Your task to perform on an android device: View the shopping cart on bestbuy.com. Search for "asus rog" on bestbuy.com, select the first entry, and add it to the cart. Image 0: 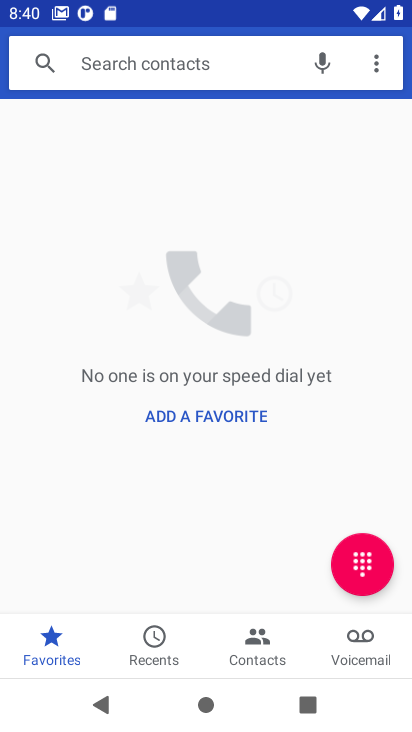
Step 0: press home button
Your task to perform on an android device: View the shopping cart on bestbuy.com. Search for "asus rog" on bestbuy.com, select the first entry, and add it to the cart. Image 1: 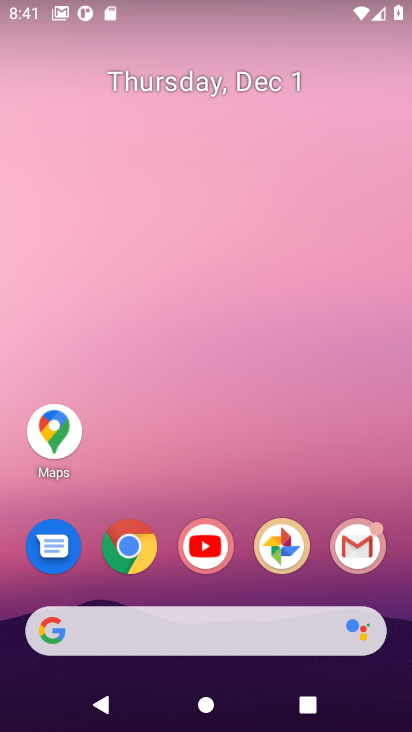
Step 1: click (128, 555)
Your task to perform on an android device: View the shopping cart on bestbuy.com. Search for "asus rog" on bestbuy.com, select the first entry, and add it to the cart. Image 2: 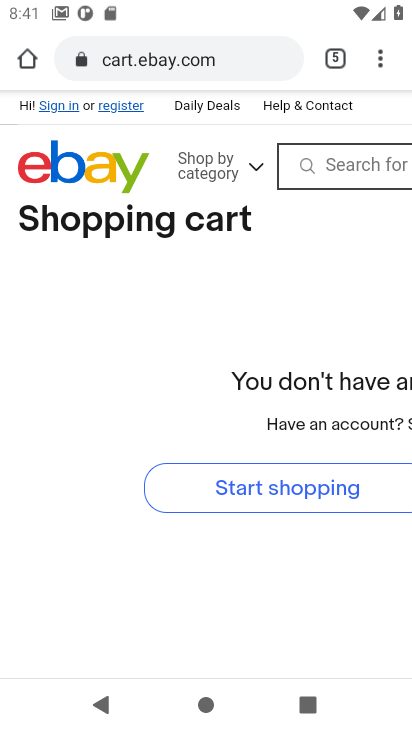
Step 2: click (178, 61)
Your task to perform on an android device: View the shopping cart on bestbuy.com. Search for "asus rog" on bestbuy.com, select the first entry, and add it to the cart. Image 3: 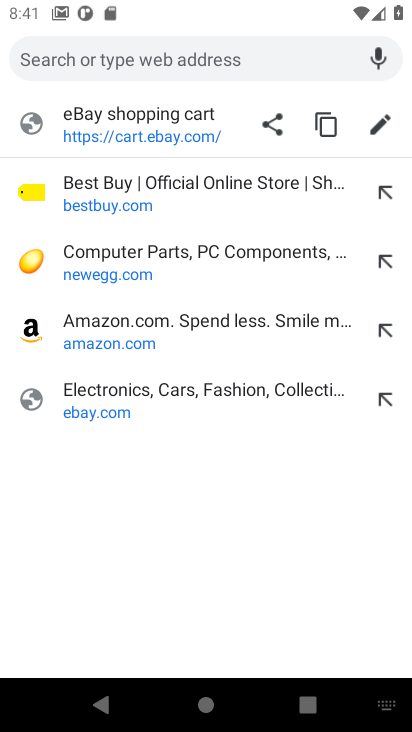
Step 3: click (106, 195)
Your task to perform on an android device: View the shopping cart on bestbuy.com. Search for "asus rog" on bestbuy.com, select the first entry, and add it to the cart. Image 4: 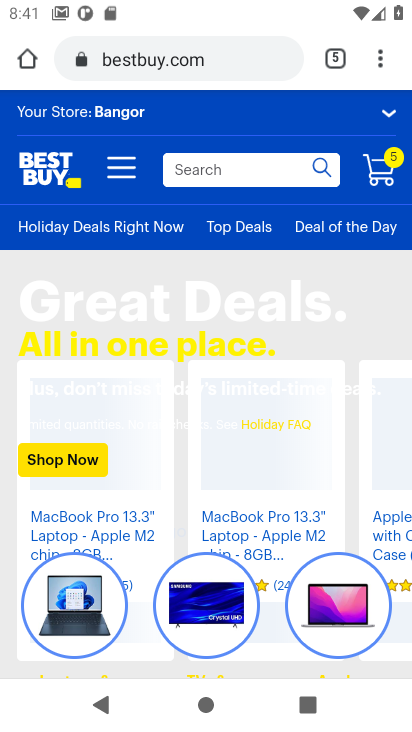
Step 4: click (376, 174)
Your task to perform on an android device: View the shopping cart on bestbuy.com. Search for "asus rog" on bestbuy.com, select the first entry, and add it to the cart. Image 5: 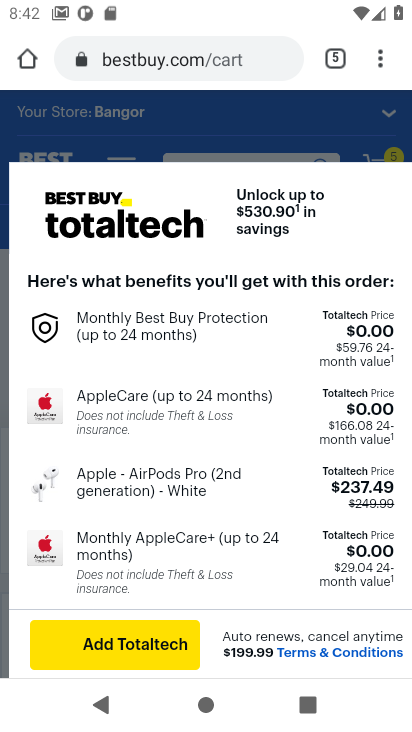
Step 5: drag from (215, 403) to (210, 248)
Your task to perform on an android device: View the shopping cart on bestbuy.com. Search for "asus rog" on bestbuy.com, select the first entry, and add it to the cart. Image 6: 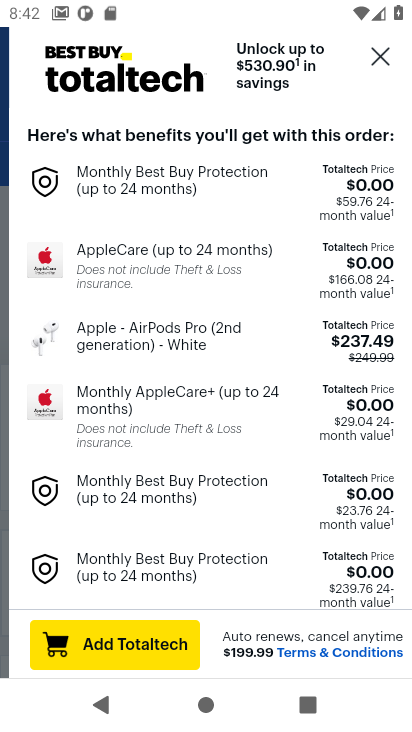
Step 6: click (377, 59)
Your task to perform on an android device: View the shopping cart on bestbuy.com. Search for "asus rog" on bestbuy.com, select the first entry, and add it to the cart. Image 7: 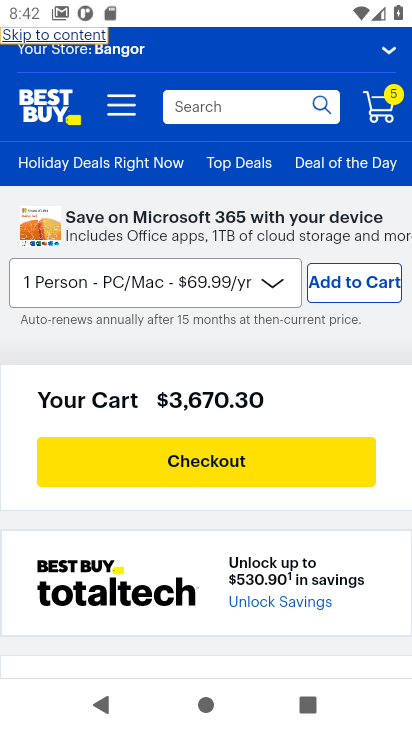
Step 7: drag from (173, 404) to (173, 144)
Your task to perform on an android device: View the shopping cart on bestbuy.com. Search for "asus rog" on bestbuy.com, select the first entry, and add it to the cart. Image 8: 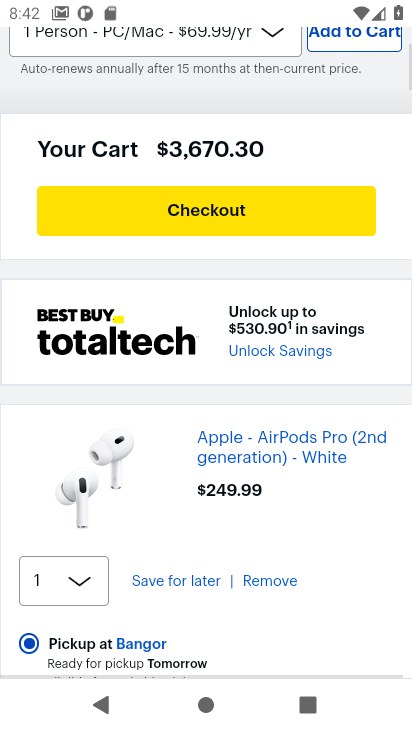
Step 8: drag from (152, 464) to (164, 288)
Your task to perform on an android device: View the shopping cart on bestbuy.com. Search for "asus rog" on bestbuy.com, select the first entry, and add it to the cart. Image 9: 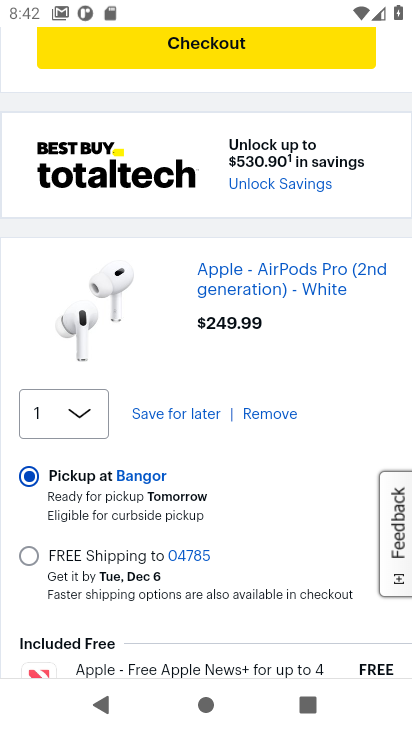
Step 9: drag from (266, 181) to (247, 501)
Your task to perform on an android device: View the shopping cart on bestbuy.com. Search for "asus rog" on bestbuy.com, select the first entry, and add it to the cart. Image 10: 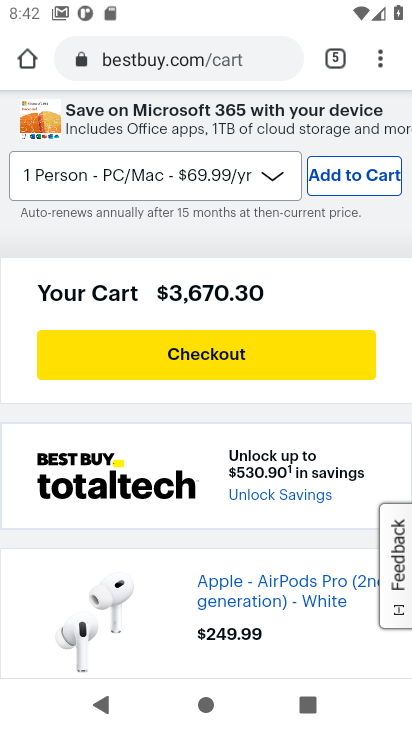
Step 10: drag from (220, 201) to (222, 493)
Your task to perform on an android device: View the shopping cart on bestbuy.com. Search for "asus rog" on bestbuy.com, select the first entry, and add it to the cart. Image 11: 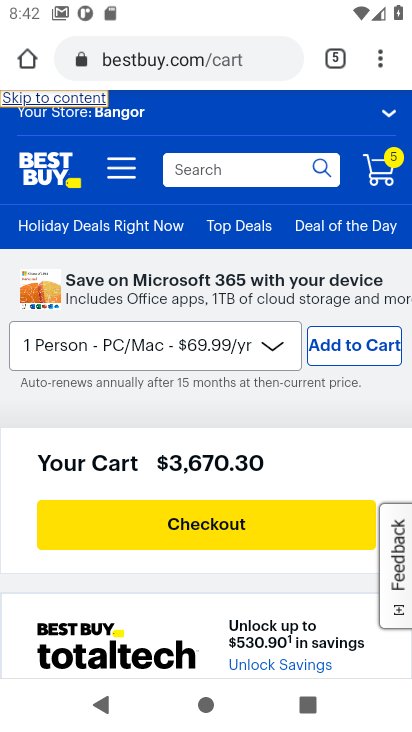
Step 11: click (216, 173)
Your task to perform on an android device: View the shopping cart on bestbuy.com. Search for "asus rog" on bestbuy.com, select the first entry, and add it to the cart. Image 12: 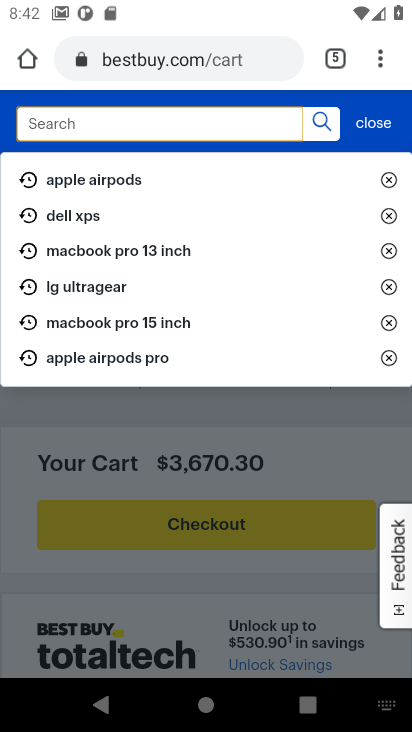
Step 12: type "asus rog"
Your task to perform on an android device: View the shopping cart on bestbuy.com. Search for "asus rog" on bestbuy.com, select the first entry, and add it to the cart. Image 13: 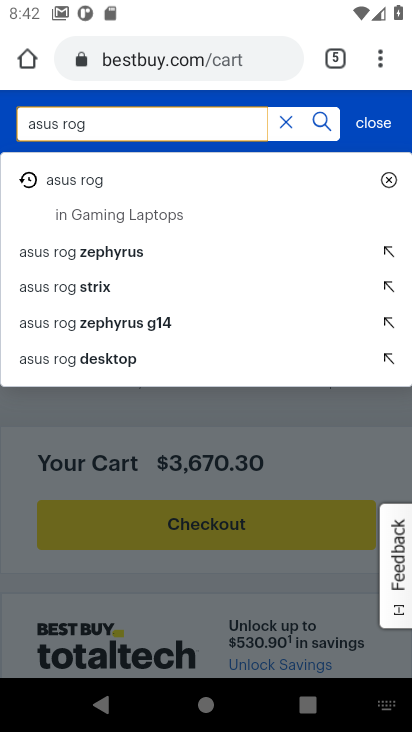
Step 13: click (77, 179)
Your task to perform on an android device: View the shopping cart on bestbuy.com. Search for "asus rog" on bestbuy.com, select the first entry, and add it to the cart. Image 14: 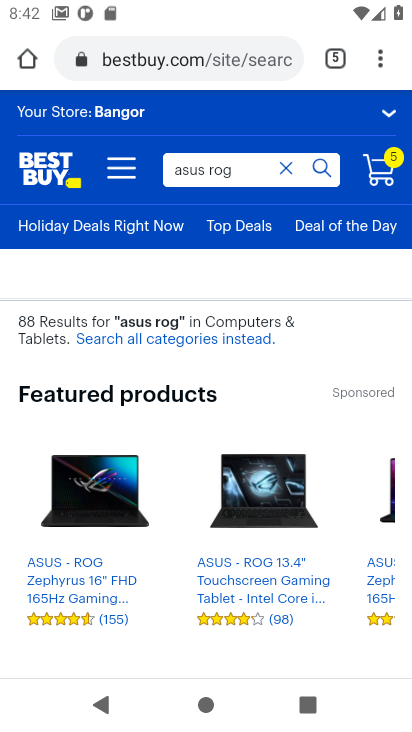
Step 14: drag from (148, 373) to (139, 151)
Your task to perform on an android device: View the shopping cart on bestbuy.com. Search for "asus rog" on bestbuy.com, select the first entry, and add it to the cart. Image 15: 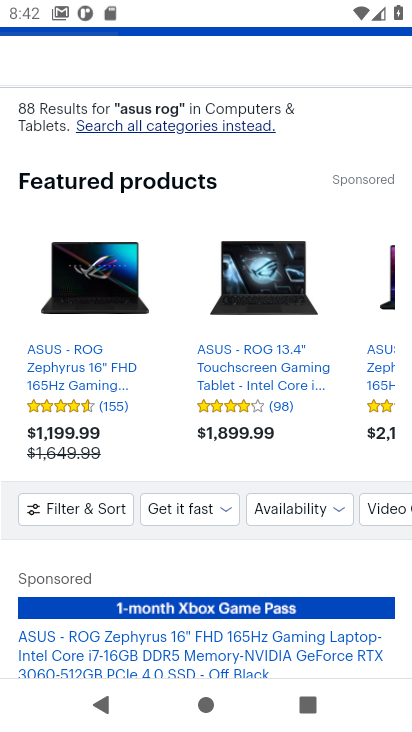
Step 15: drag from (157, 432) to (136, 147)
Your task to perform on an android device: View the shopping cart on bestbuy.com. Search for "asus rog" on bestbuy.com, select the first entry, and add it to the cart. Image 16: 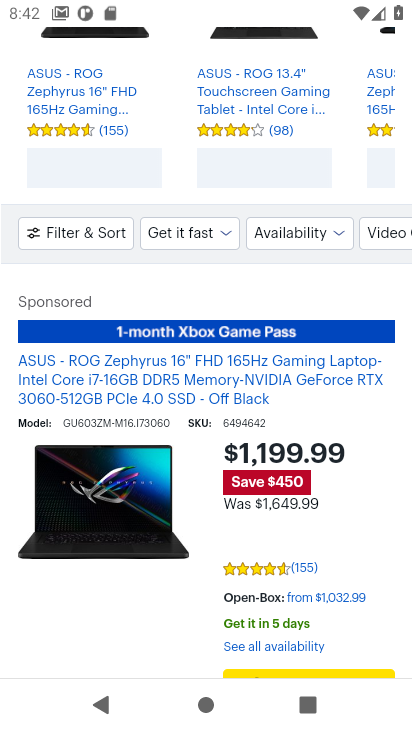
Step 16: click (348, 650)
Your task to perform on an android device: View the shopping cart on bestbuy.com. Search for "asus rog" on bestbuy.com, select the first entry, and add it to the cart. Image 17: 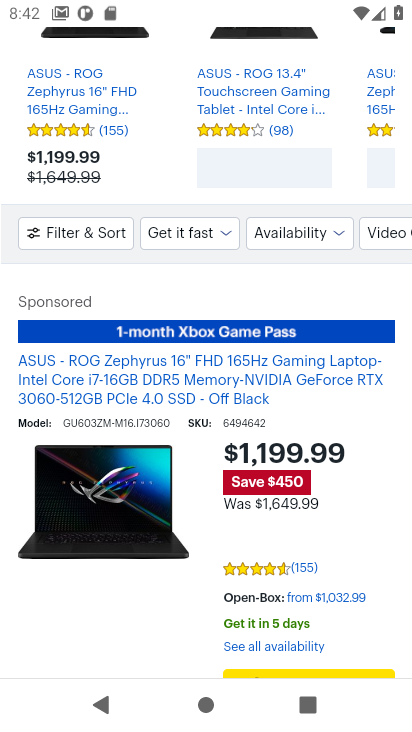
Step 17: drag from (348, 649) to (337, 462)
Your task to perform on an android device: View the shopping cart on bestbuy.com. Search for "asus rog" on bestbuy.com, select the first entry, and add it to the cart. Image 18: 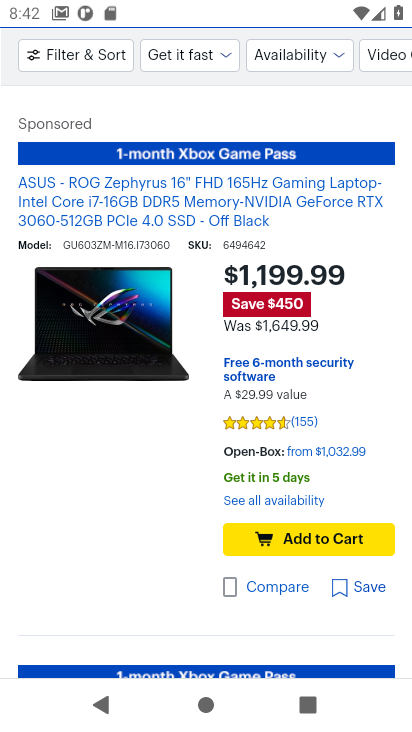
Step 18: click (331, 477)
Your task to perform on an android device: View the shopping cart on bestbuy.com. Search for "asus rog" on bestbuy.com, select the first entry, and add it to the cart. Image 19: 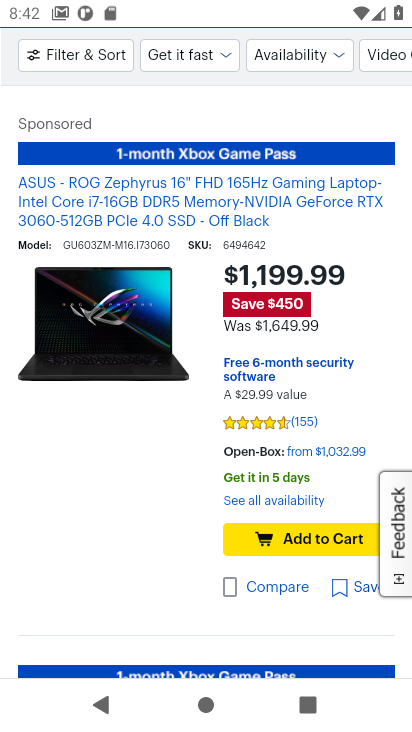
Step 19: click (315, 536)
Your task to perform on an android device: View the shopping cart on bestbuy.com. Search for "asus rog" on bestbuy.com, select the first entry, and add it to the cart. Image 20: 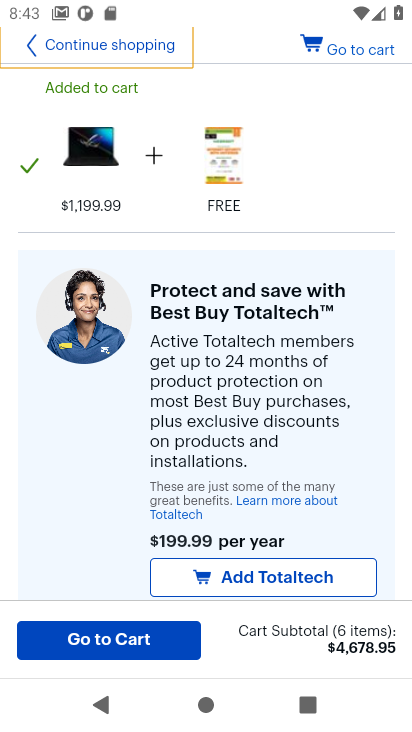
Step 20: task complete